Your task to perform on an android device: Play the last video I watched on Youtube Image 0: 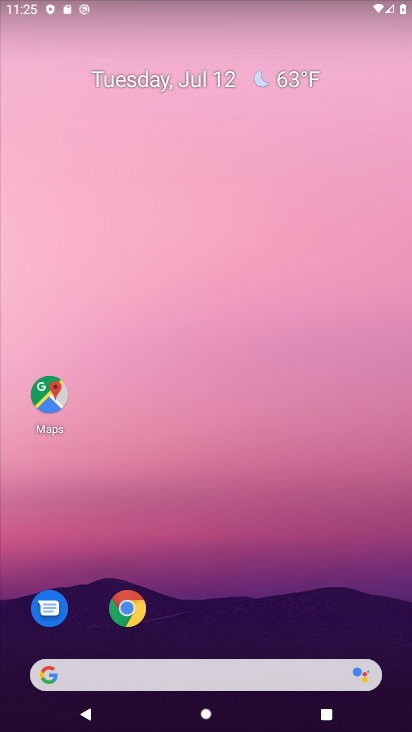
Step 0: drag from (201, 623) to (227, 149)
Your task to perform on an android device: Play the last video I watched on Youtube Image 1: 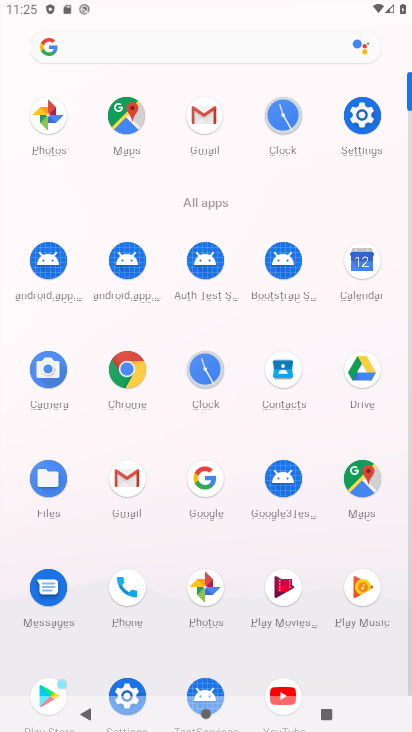
Step 1: click (285, 691)
Your task to perform on an android device: Play the last video I watched on Youtube Image 2: 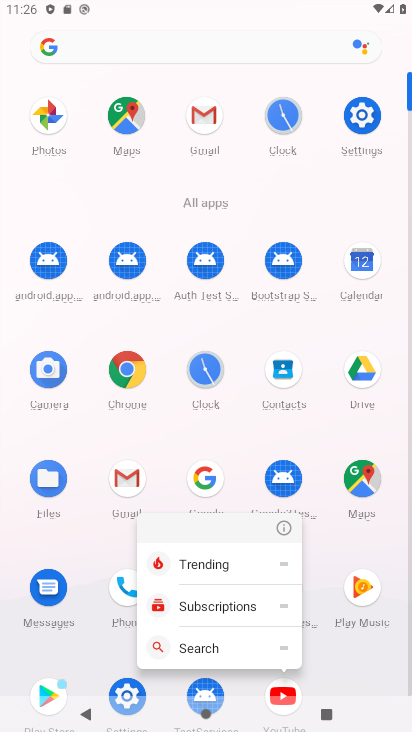
Step 2: click (287, 529)
Your task to perform on an android device: Play the last video I watched on Youtube Image 3: 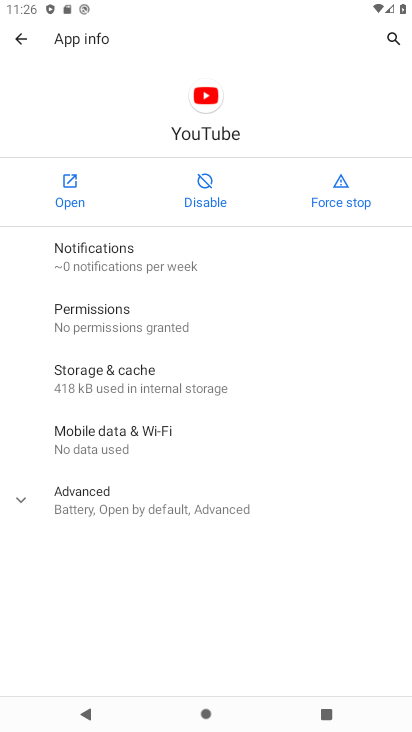
Step 3: click (68, 190)
Your task to perform on an android device: Play the last video I watched on Youtube Image 4: 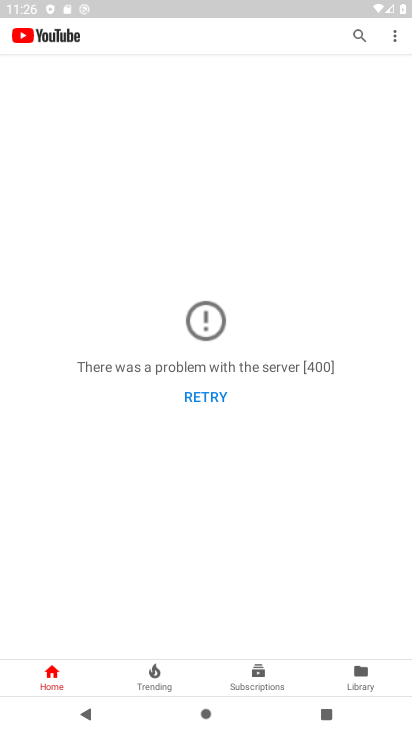
Step 4: click (359, 689)
Your task to perform on an android device: Play the last video I watched on Youtube Image 5: 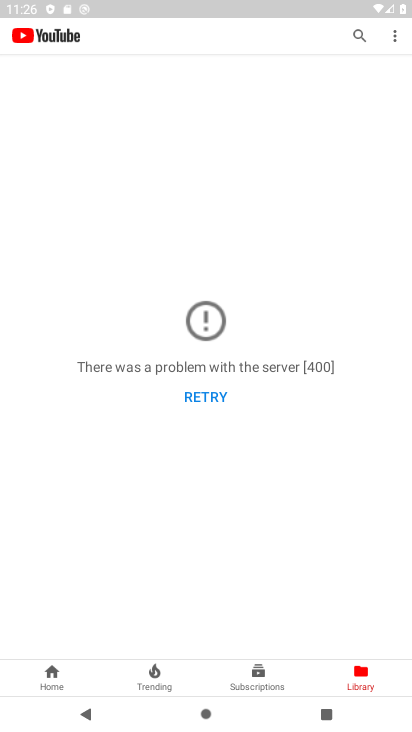
Step 5: task complete